Your task to perform on an android device: open a bookmark in the chrome app Image 0: 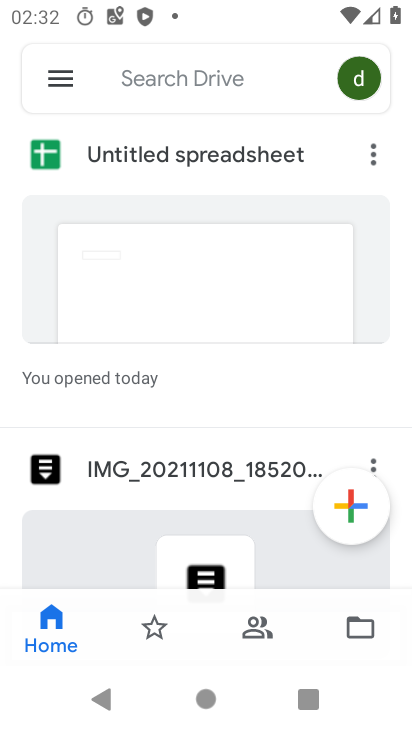
Step 0: press home button
Your task to perform on an android device: open a bookmark in the chrome app Image 1: 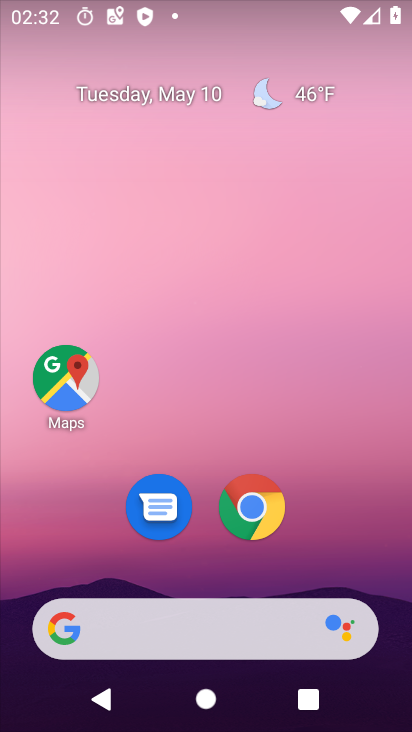
Step 1: drag from (261, 663) to (209, 294)
Your task to perform on an android device: open a bookmark in the chrome app Image 2: 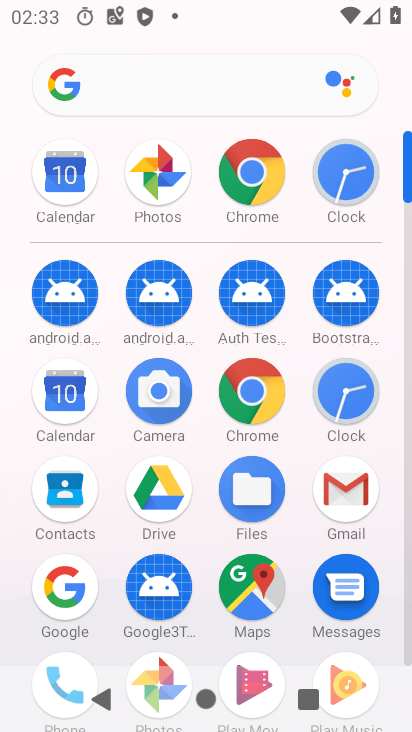
Step 2: click (264, 175)
Your task to perform on an android device: open a bookmark in the chrome app Image 3: 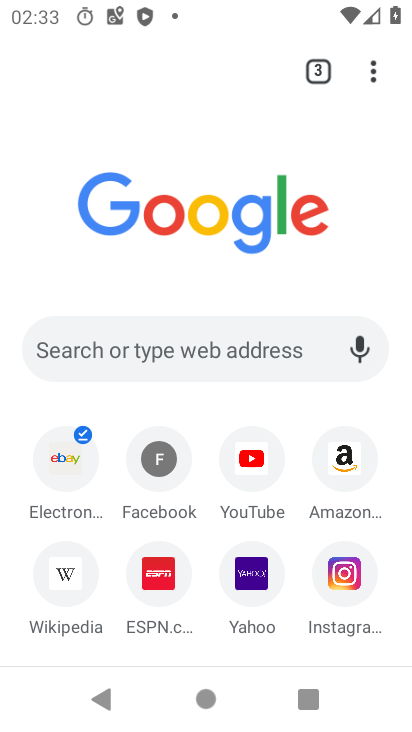
Step 3: click (367, 75)
Your task to perform on an android device: open a bookmark in the chrome app Image 4: 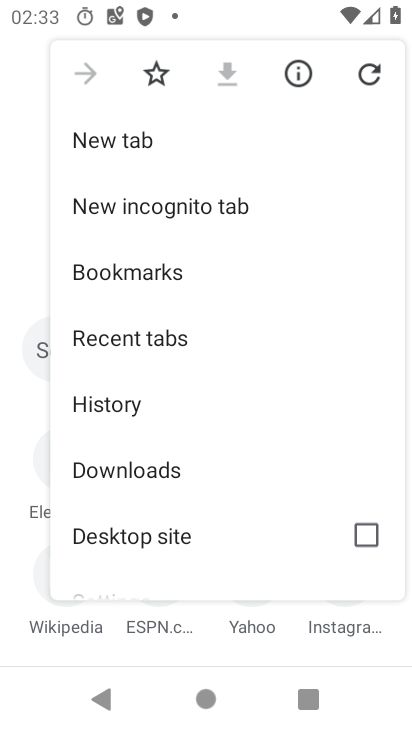
Step 4: click (158, 278)
Your task to perform on an android device: open a bookmark in the chrome app Image 5: 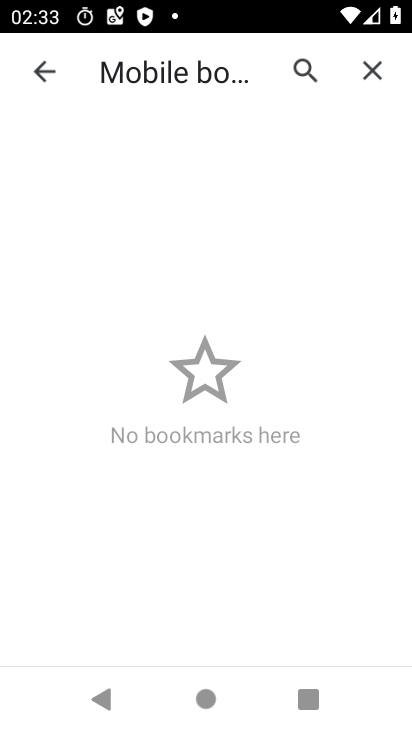
Step 5: task complete